Your task to perform on an android device: toggle priority inbox in the gmail app Image 0: 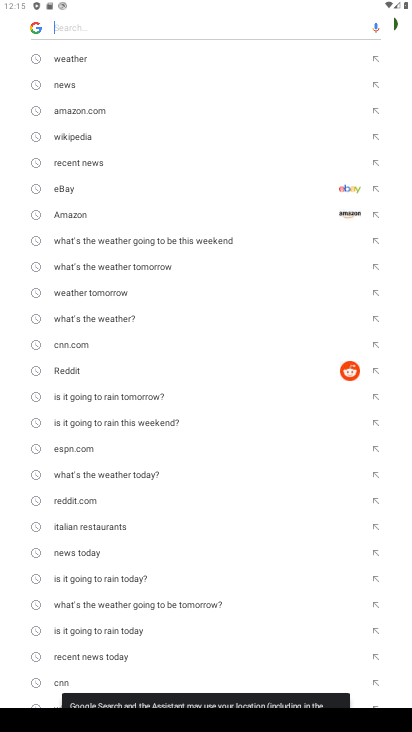
Step 0: press home button
Your task to perform on an android device: toggle priority inbox in the gmail app Image 1: 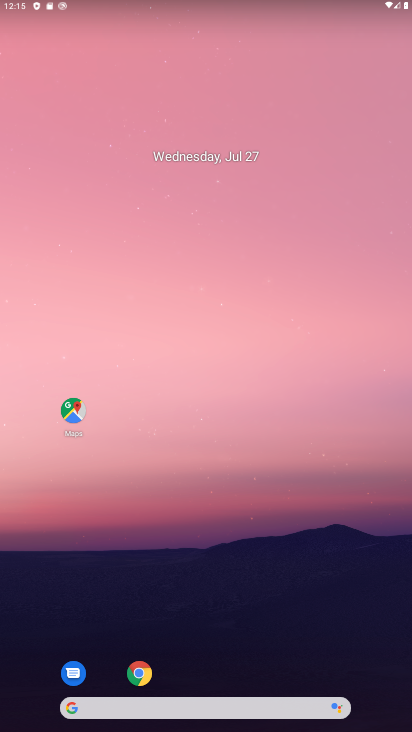
Step 1: drag from (326, 646) to (214, 56)
Your task to perform on an android device: toggle priority inbox in the gmail app Image 2: 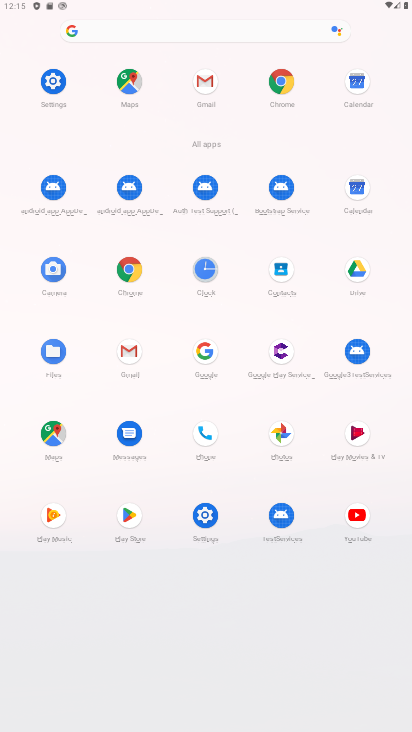
Step 2: click (201, 85)
Your task to perform on an android device: toggle priority inbox in the gmail app Image 3: 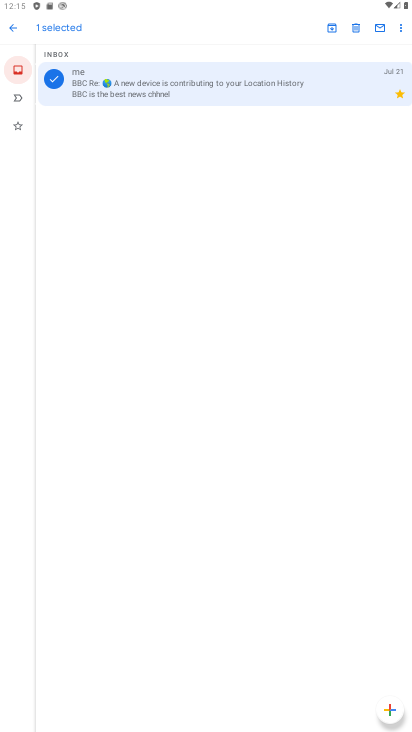
Step 3: click (16, 26)
Your task to perform on an android device: toggle priority inbox in the gmail app Image 4: 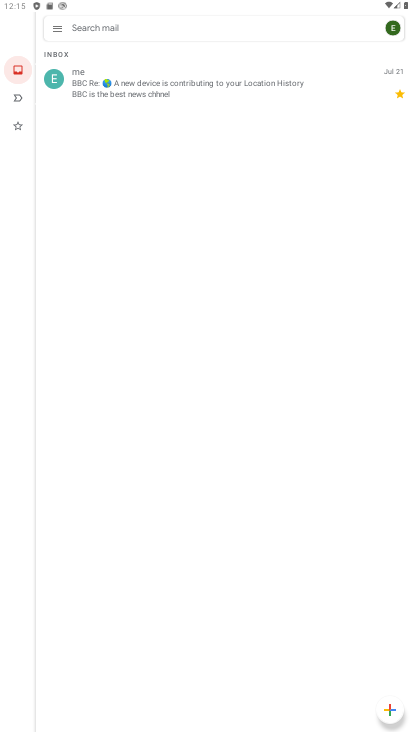
Step 4: click (58, 28)
Your task to perform on an android device: toggle priority inbox in the gmail app Image 5: 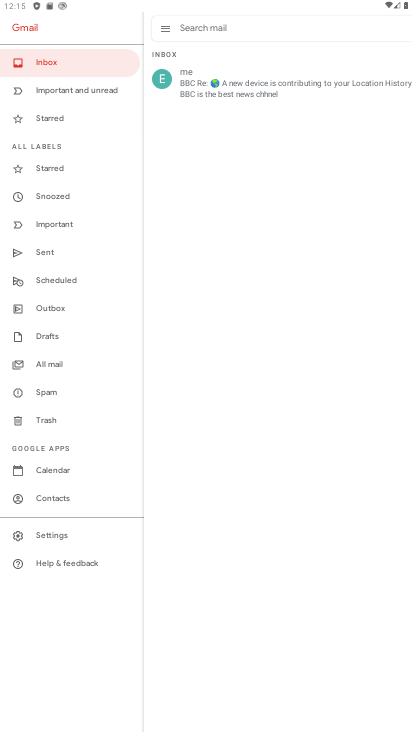
Step 5: click (83, 535)
Your task to perform on an android device: toggle priority inbox in the gmail app Image 6: 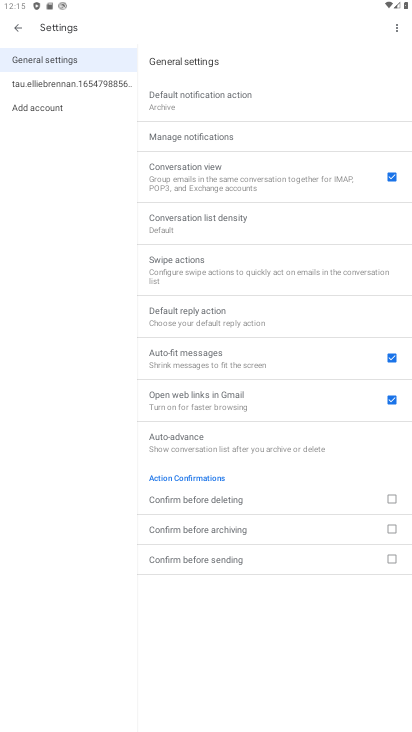
Step 6: click (86, 92)
Your task to perform on an android device: toggle priority inbox in the gmail app Image 7: 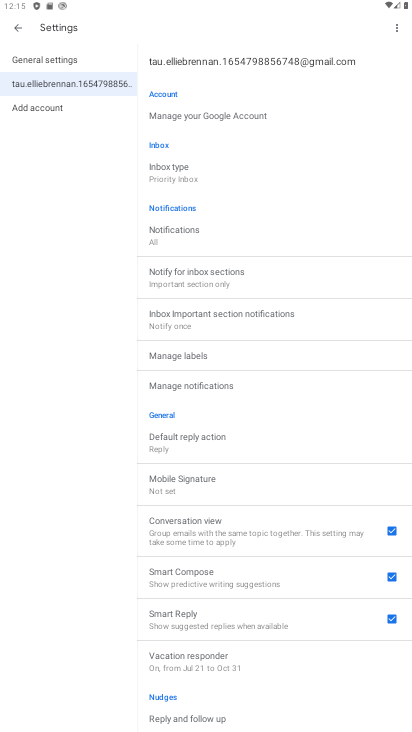
Step 7: click (201, 180)
Your task to perform on an android device: toggle priority inbox in the gmail app Image 8: 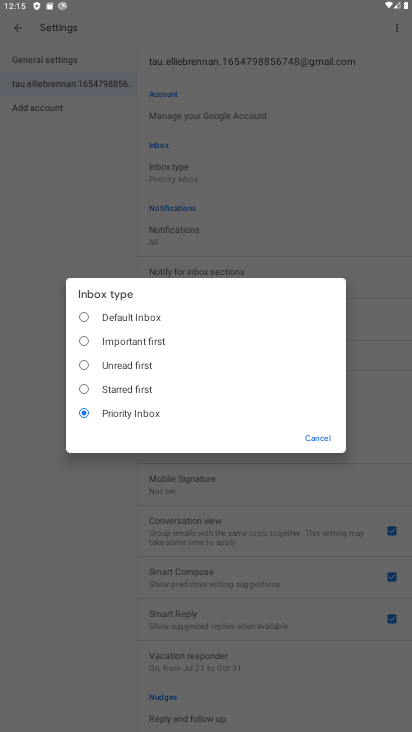
Step 8: click (140, 321)
Your task to perform on an android device: toggle priority inbox in the gmail app Image 9: 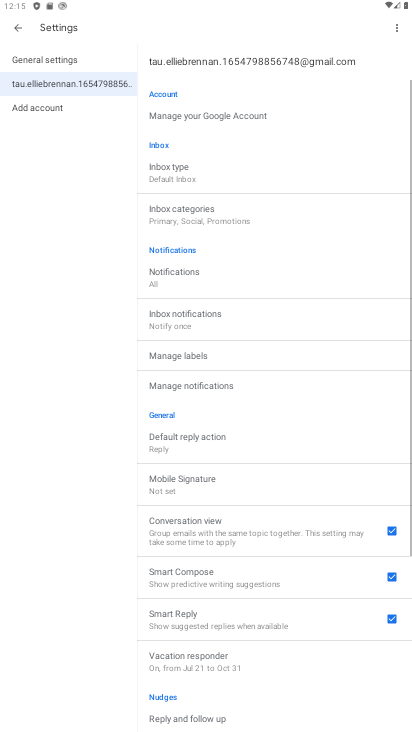
Step 9: task complete